Your task to perform on an android device: Open internet settings Image 0: 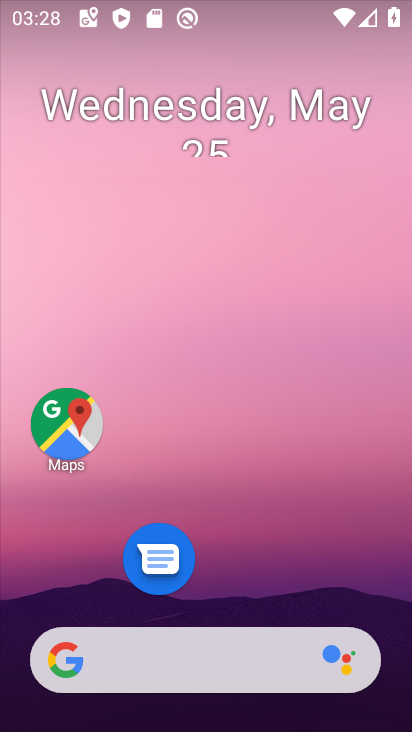
Step 0: press home button
Your task to perform on an android device: Open internet settings Image 1: 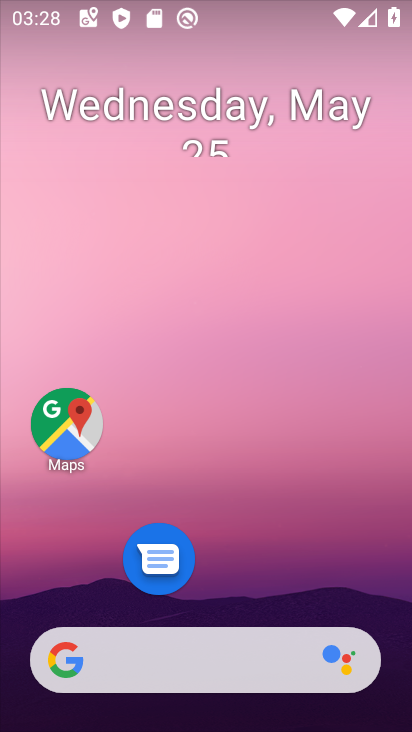
Step 1: drag from (224, 593) to (252, 97)
Your task to perform on an android device: Open internet settings Image 2: 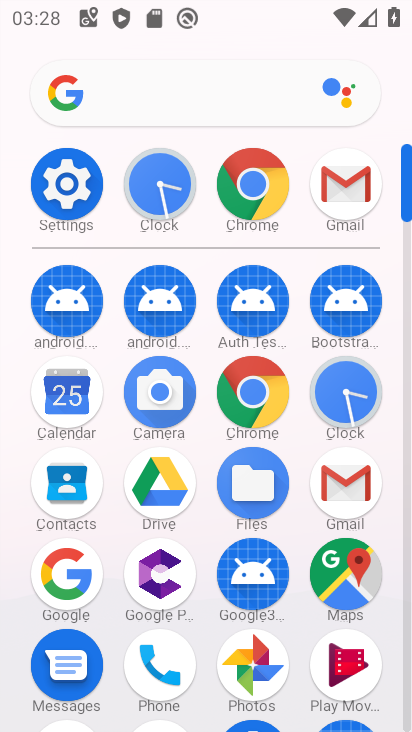
Step 2: click (63, 177)
Your task to perform on an android device: Open internet settings Image 3: 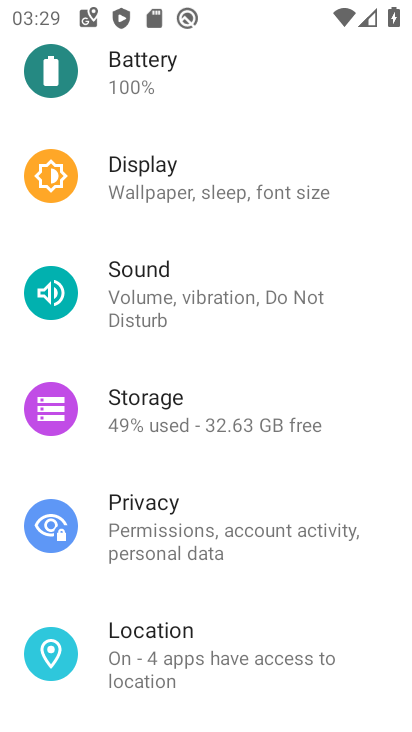
Step 3: drag from (94, 83) to (81, 557)
Your task to perform on an android device: Open internet settings Image 4: 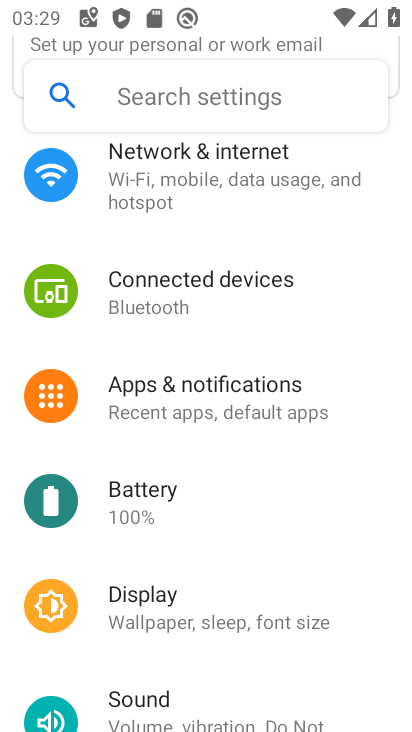
Step 4: click (98, 168)
Your task to perform on an android device: Open internet settings Image 5: 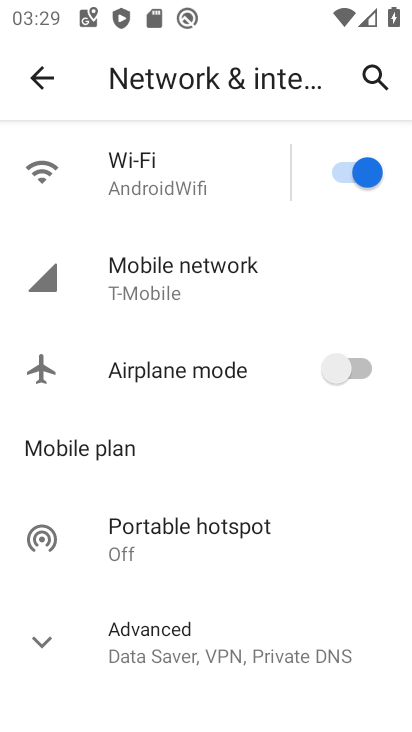
Step 5: click (39, 637)
Your task to perform on an android device: Open internet settings Image 6: 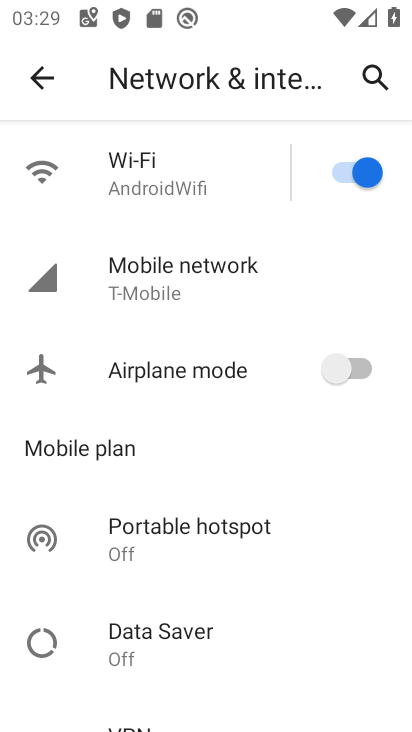
Step 6: task complete